Your task to perform on an android device: Add "logitech g502" to the cart on newegg.com Image 0: 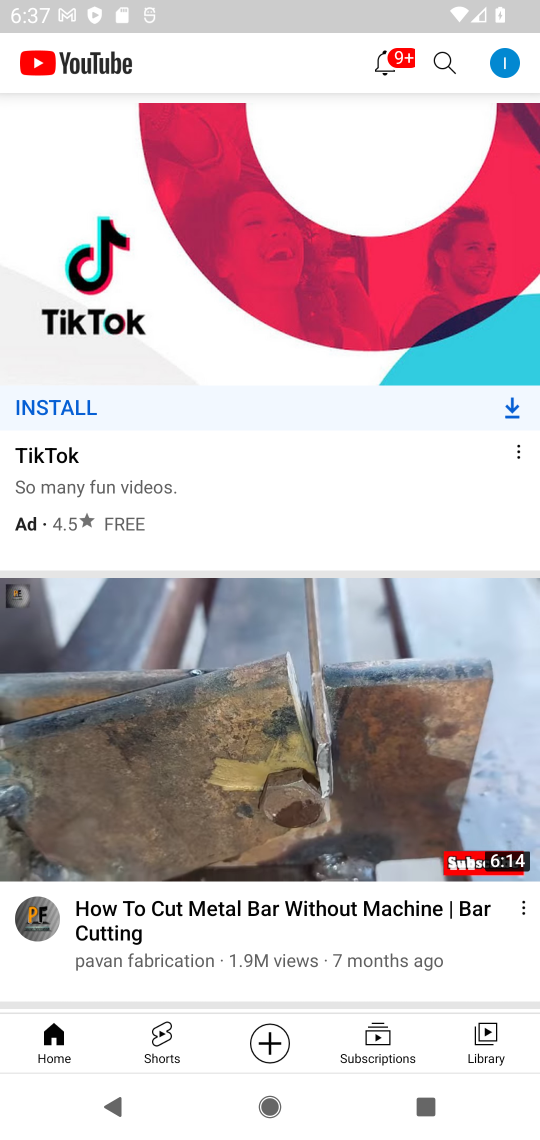
Step 0: press home button
Your task to perform on an android device: Add "logitech g502" to the cart on newegg.com Image 1: 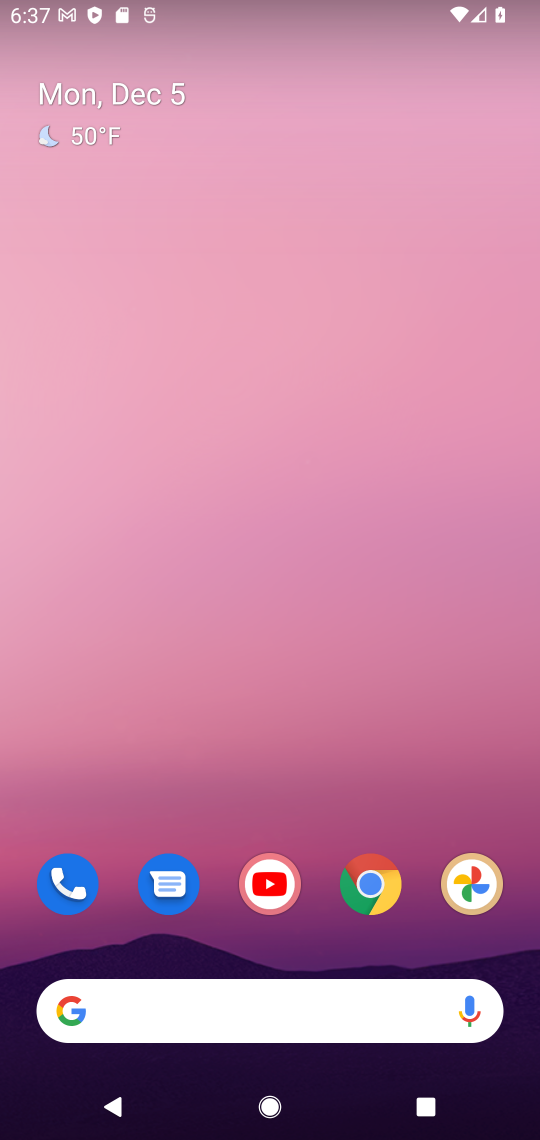
Step 1: click (379, 874)
Your task to perform on an android device: Add "logitech g502" to the cart on newegg.com Image 2: 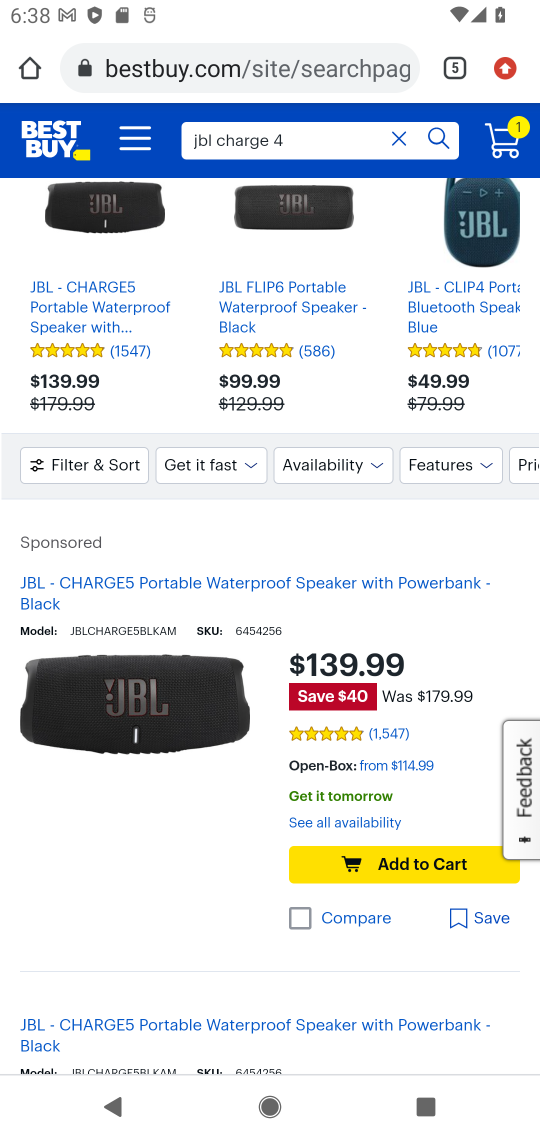
Step 2: click (456, 76)
Your task to perform on an android device: Add "logitech g502" to the cart on newegg.com Image 3: 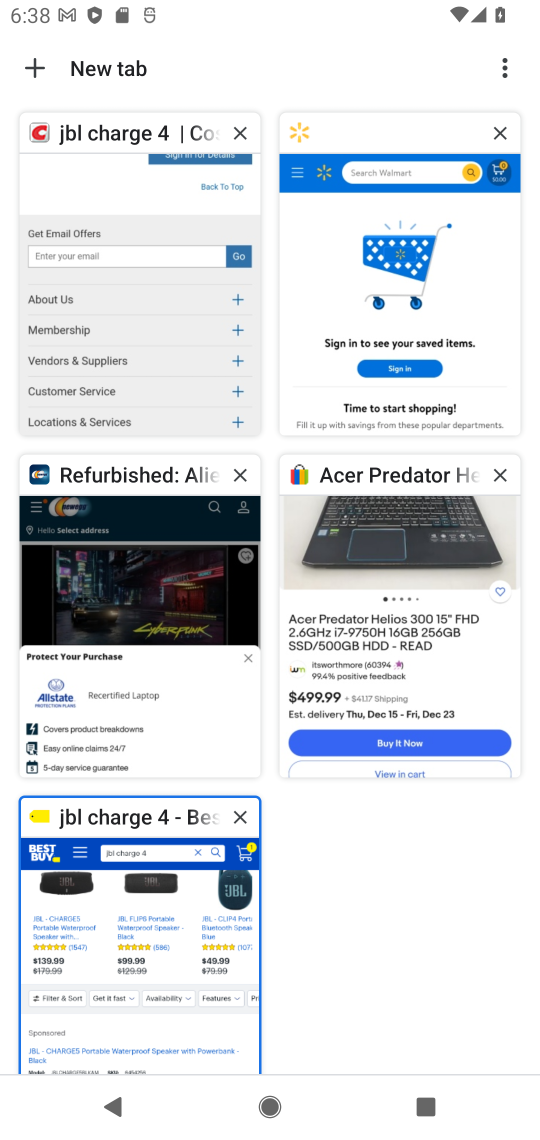
Step 3: click (144, 611)
Your task to perform on an android device: Add "logitech g502" to the cart on newegg.com Image 4: 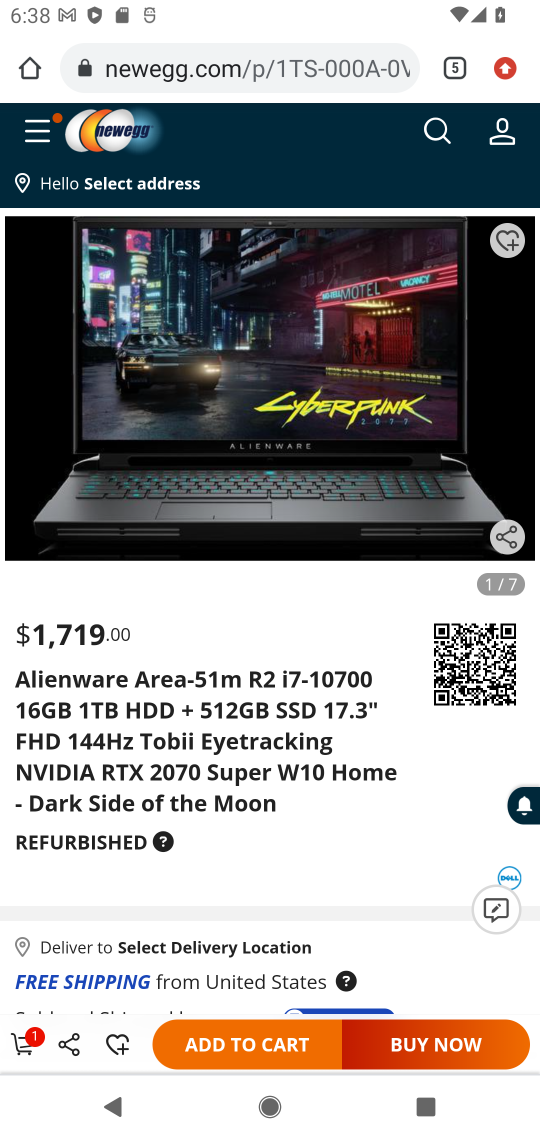
Step 4: click (436, 130)
Your task to perform on an android device: Add "logitech g502" to the cart on newegg.com Image 5: 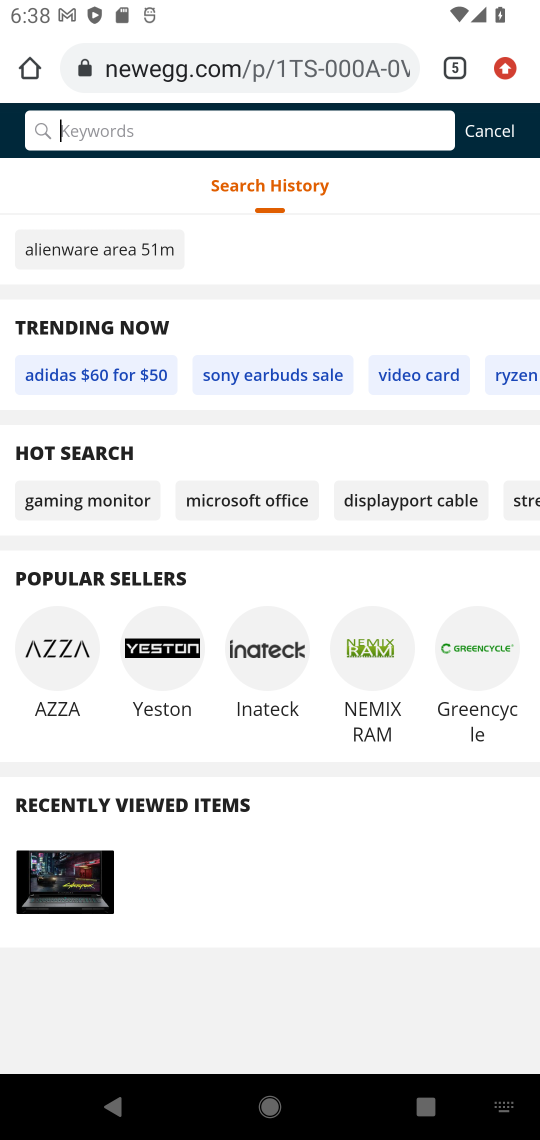
Step 5: type "logitech g502"
Your task to perform on an android device: Add "logitech g502" to the cart on newegg.com Image 6: 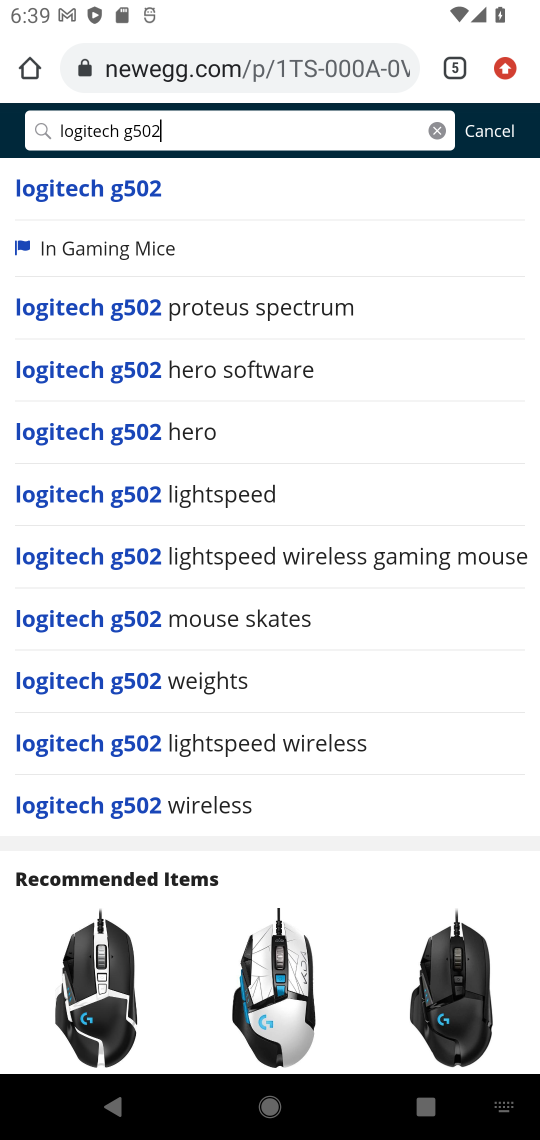
Step 6: click (122, 197)
Your task to perform on an android device: Add "logitech g502" to the cart on newegg.com Image 7: 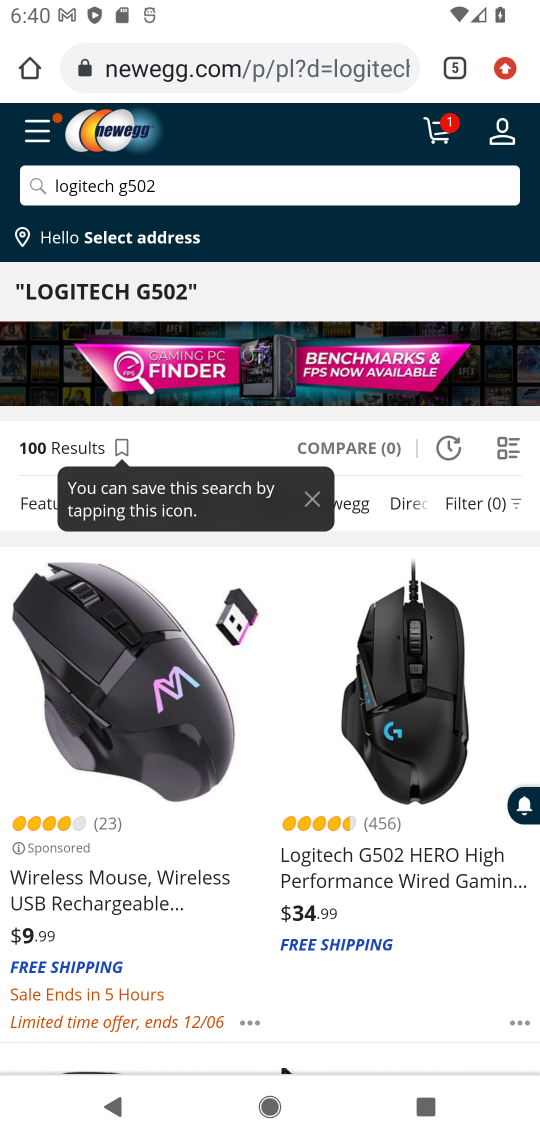
Step 7: click (444, 852)
Your task to perform on an android device: Add "logitech g502" to the cart on newegg.com Image 8: 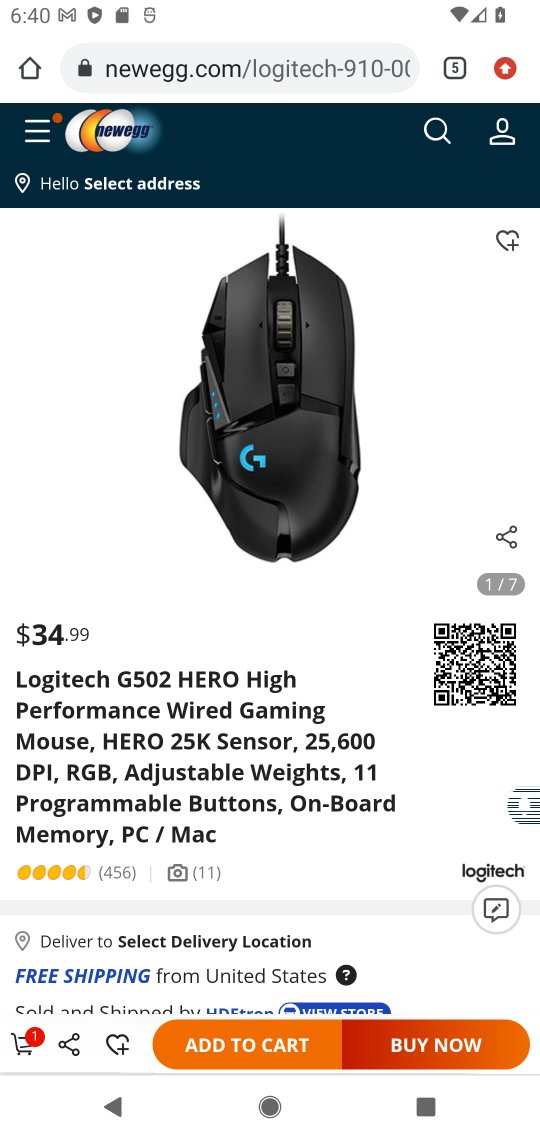
Step 8: click (260, 1053)
Your task to perform on an android device: Add "logitech g502" to the cart on newegg.com Image 9: 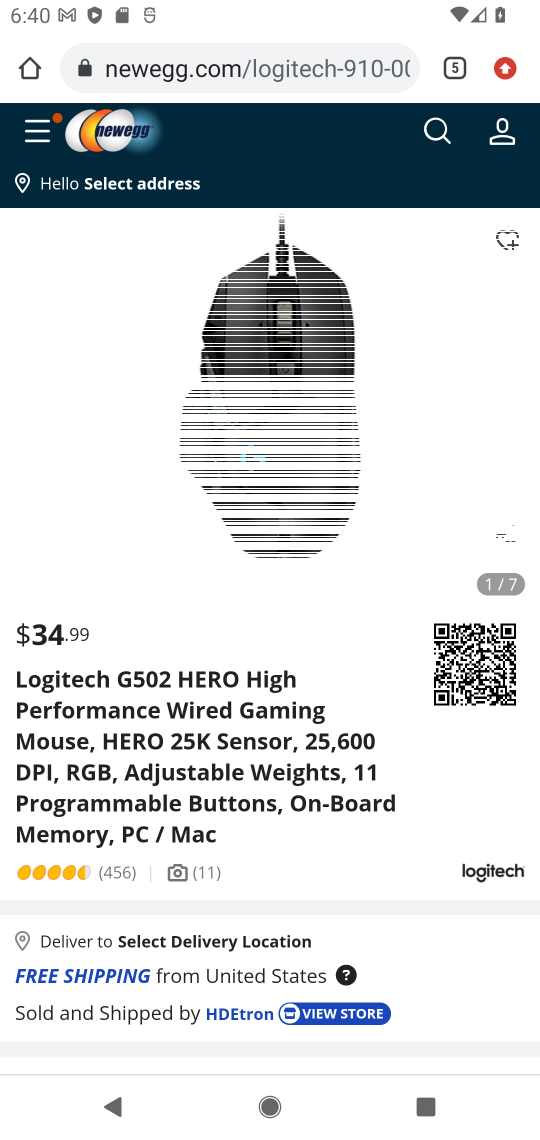
Step 9: click (260, 1053)
Your task to perform on an android device: Add "logitech g502" to the cart on newegg.com Image 10: 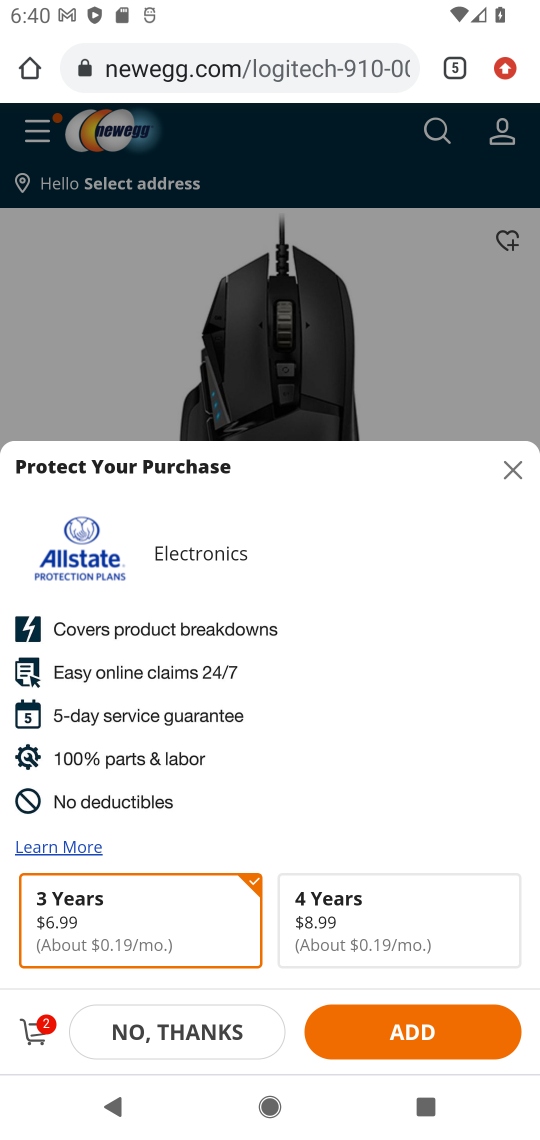
Step 10: task complete